Your task to perform on an android device: When is my next meeting? Image 0: 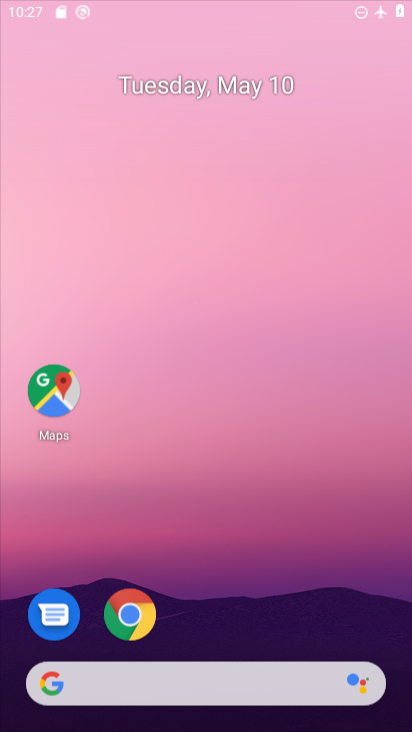
Step 0: drag from (237, 601) to (393, 237)
Your task to perform on an android device: When is my next meeting? Image 1: 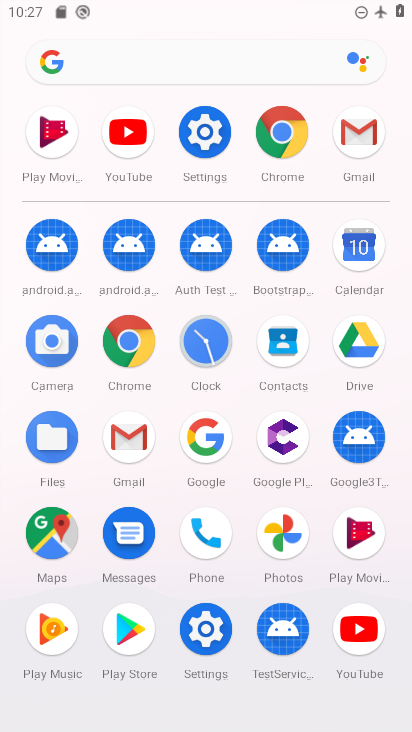
Step 1: click (367, 238)
Your task to perform on an android device: When is my next meeting? Image 2: 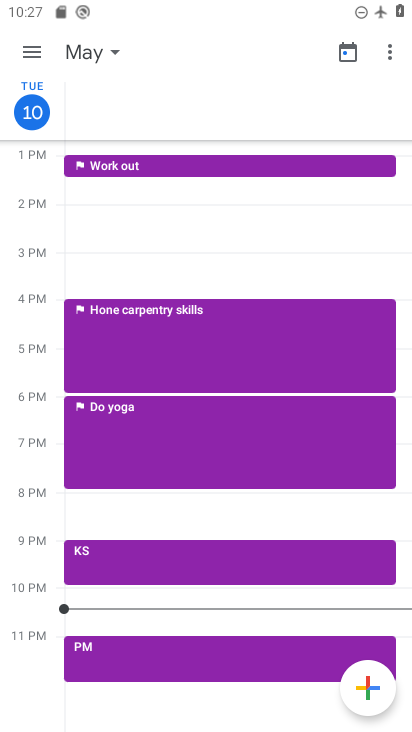
Step 2: drag from (191, 609) to (263, 269)
Your task to perform on an android device: When is my next meeting? Image 3: 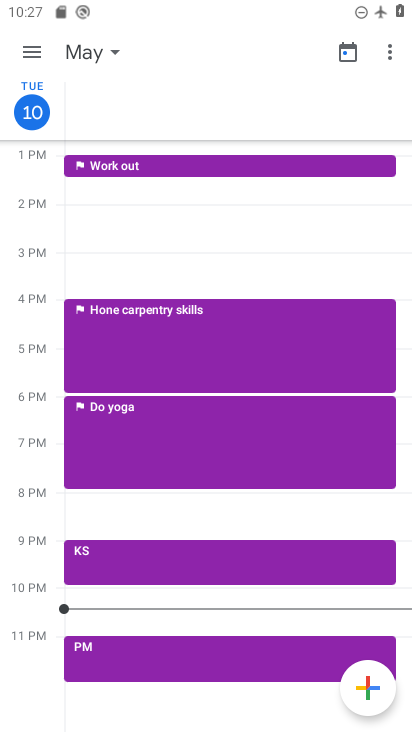
Step 3: drag from (234, 544) to (311, 274)
Your task to perform on an android device: When is my next meeting? Image 4: 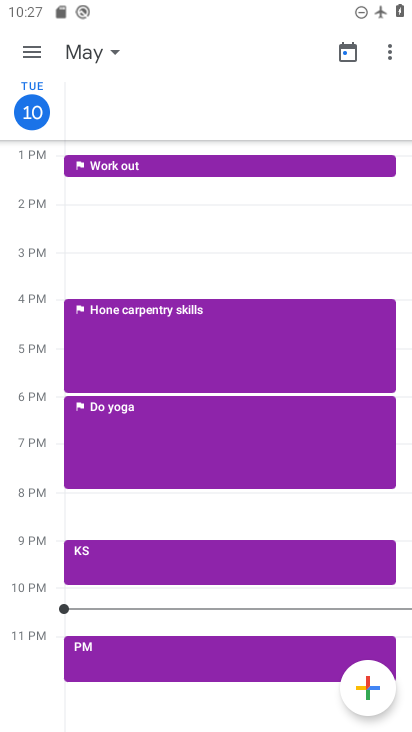
Step 4: drag from (184, 542) to (150, 298)
Your task to perform on an android device: When is my next meeting? Image 5: 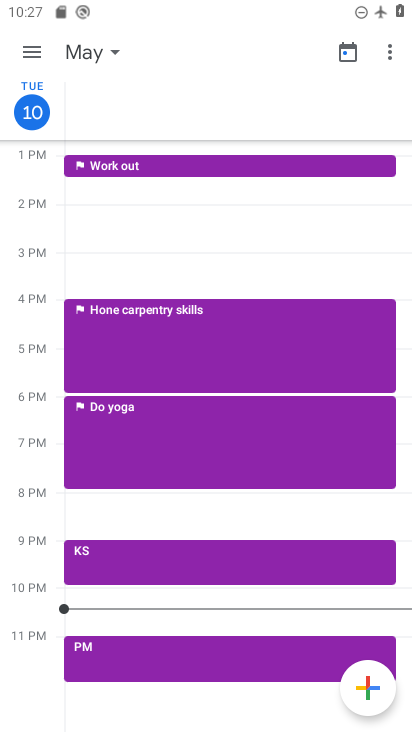
Step 5: drag from (219, 466) to (3, 2)
Your task to perform on an android device: When is my next meeting? Image 6: 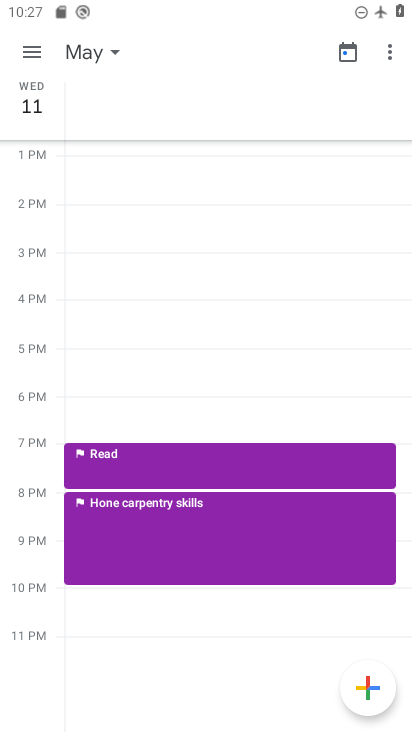
Step 6: click (93, 53)
Your task to perform on an android device: When is my next meeting? Image 7: 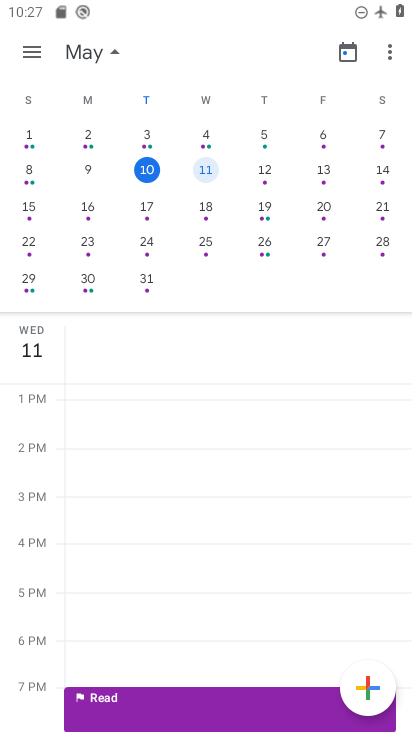
Step 7: click (154, 167)
Your task to perform on an android device: When is my next meeting? Image 8: 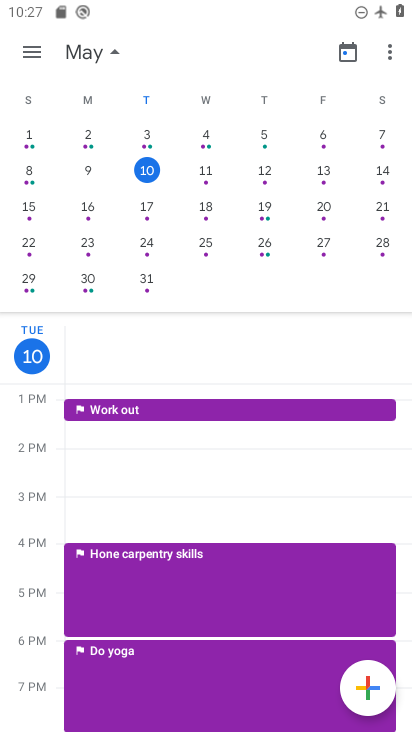
Step 8: task complete